Your task to perform on an android device: clear all cookies in the chrome app Image 0: 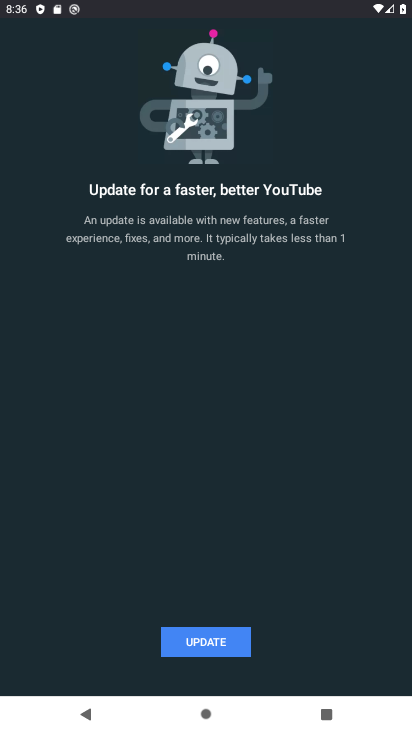
Step 0: press home button
Your task to perform on an android device: clear all cookies in the chrome app Image 1: 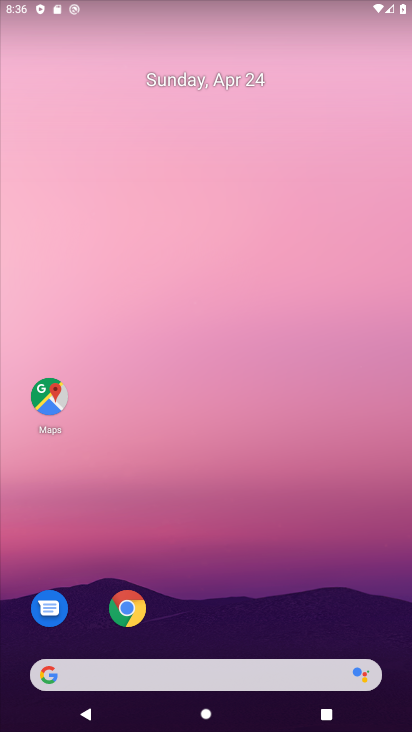
Step 1: click (125, 607)
Your task to perform on an android device: clear all cookies in the chrome app Image 2: 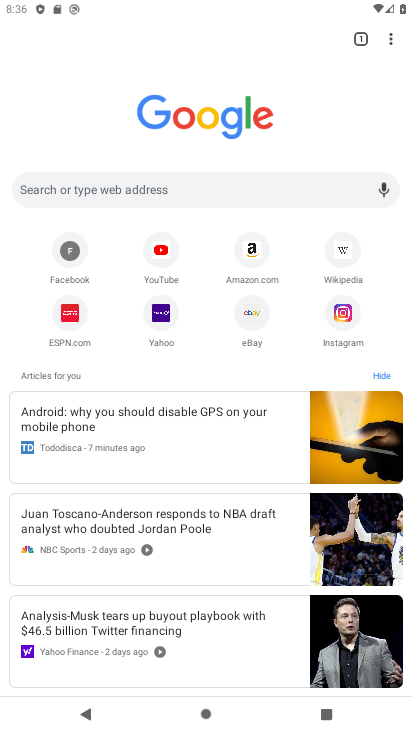
Step 2: click (389, 38)
Your task to perform on an android device: clear all cookies in the chrome app Image 3: 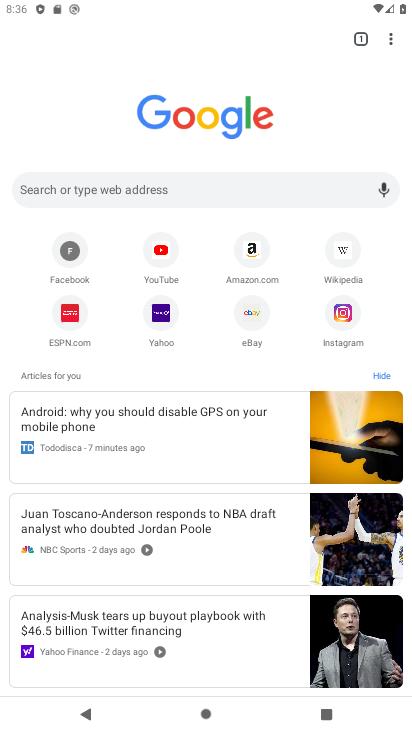
Step 3: drag from (389, 38) to (268, 225)
Your task to perform on an android device: clear all cookies in the chrome app Image 4: 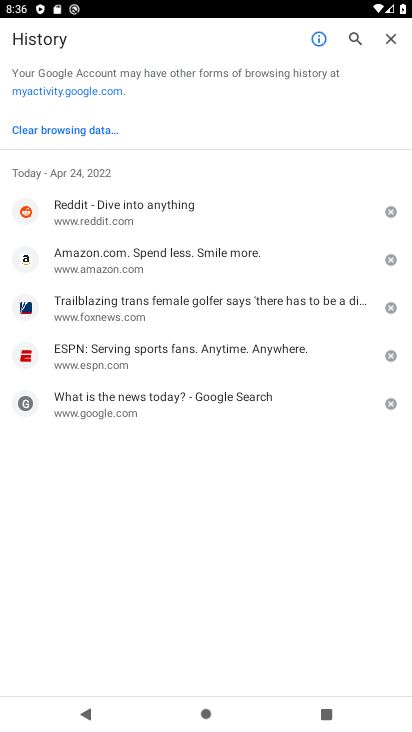
Step 4: click (73, 135)
Your task to perform on an android device: clear all cookies in the chrome app Image 5: 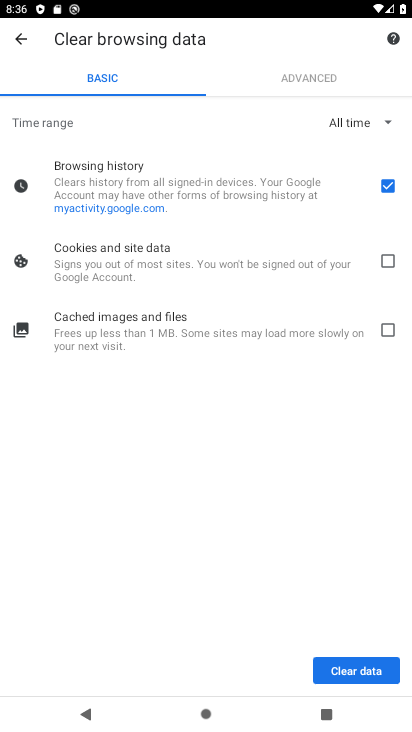
Step 5: click (366, 668)
Your task to perform on an android device: clear all cookies in the chrome app Image 6: 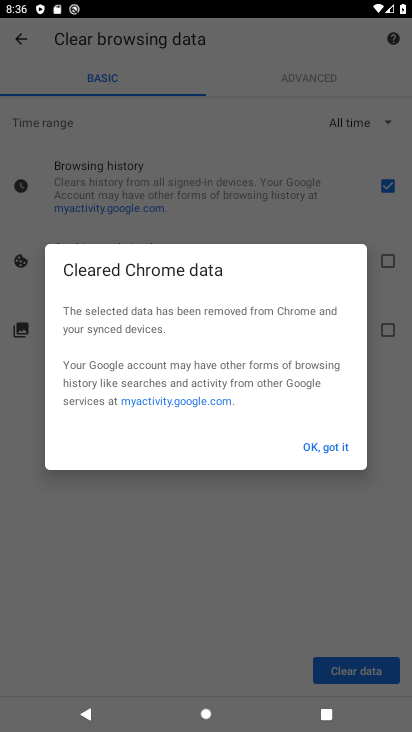
Step 6: click (330, 449)
Your task to perform on an android device: clear all cookies in the chrome app Image 7: 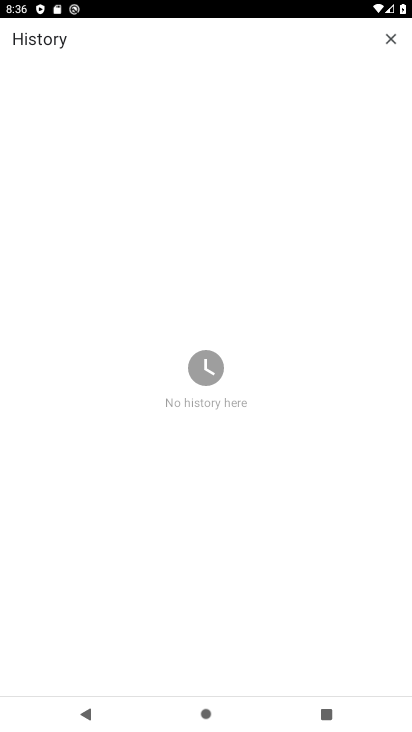
Step 7: task complete